Your task to perform on an android device: open a new tab in the chrome app Image 0: 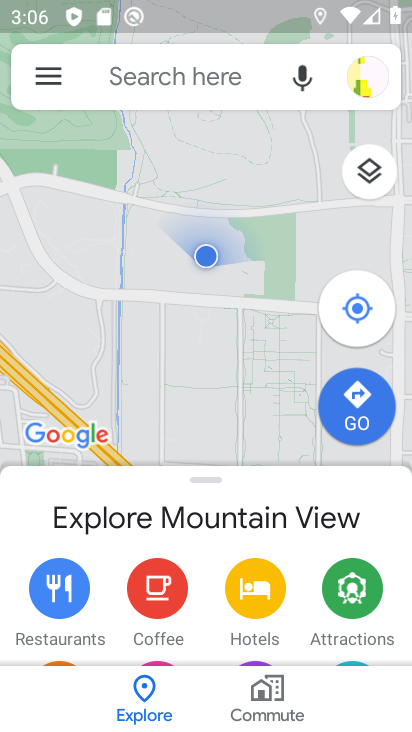
Step 0: press home button
Your task to perform on an android device: open a new tab in the chrome app Image 1: 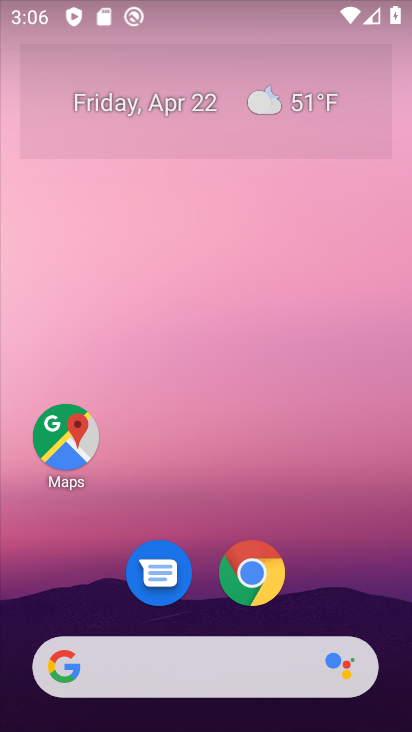
Step 1: click (255, 578)
Your task to perform on an android device: open a new tab in the chrome app Image 2: 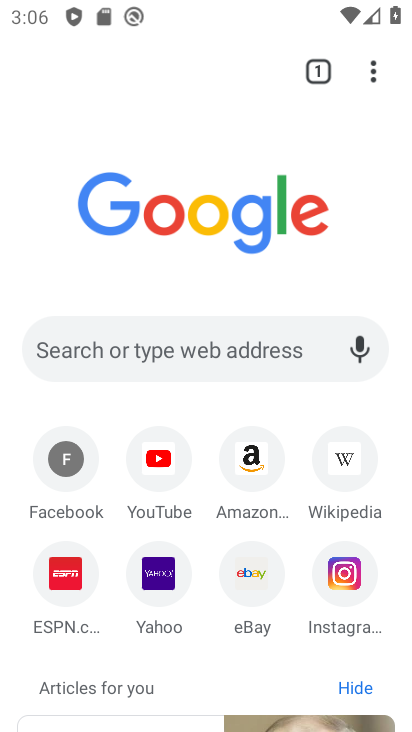
Step 2: click (313, 71)
Your task to perform on an android device: open a new tab in the chrome app Image 3: 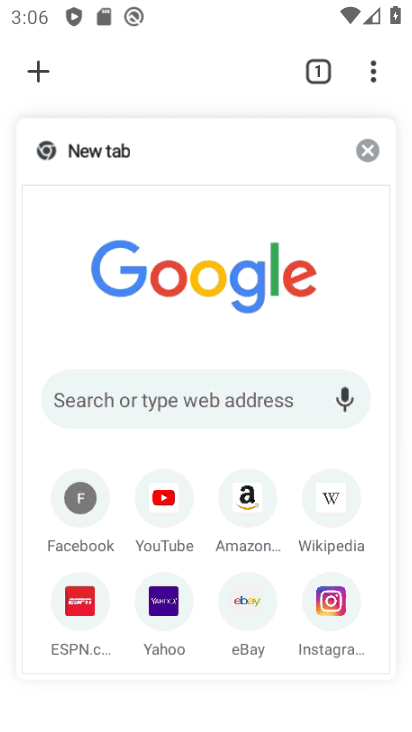
Step 3: click (23, 82)
Your task to perform on an android device: open a new tab in the chrome app Image 4: 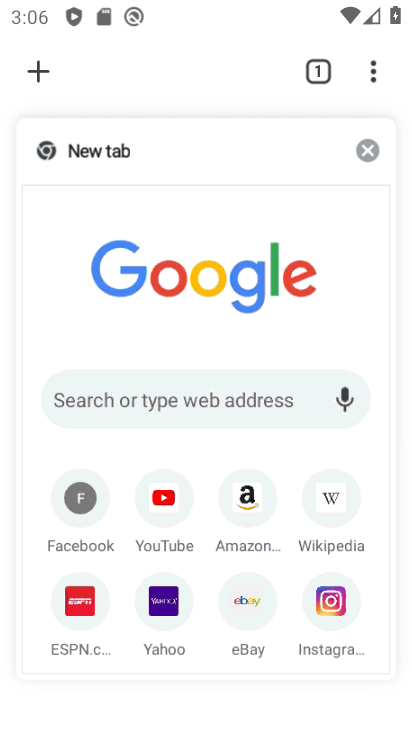
Step 4: click (26, 64)
Your task to perform on an android device: open a new tab in the chrome app Image 5: 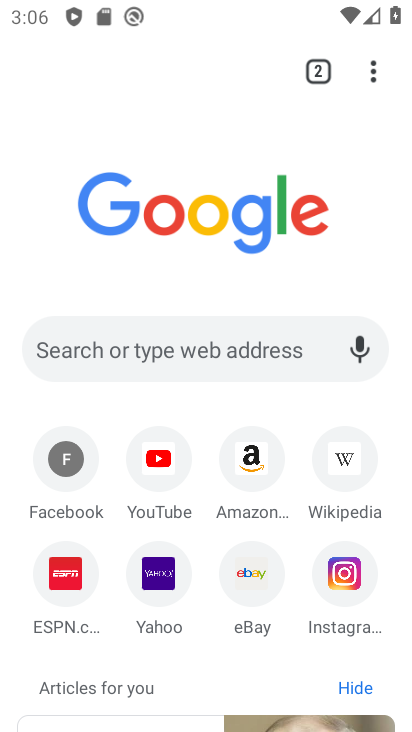
Step 5: task complete